Your task to perform on an android device: delete the emails in spam in the gmail app Image 0: 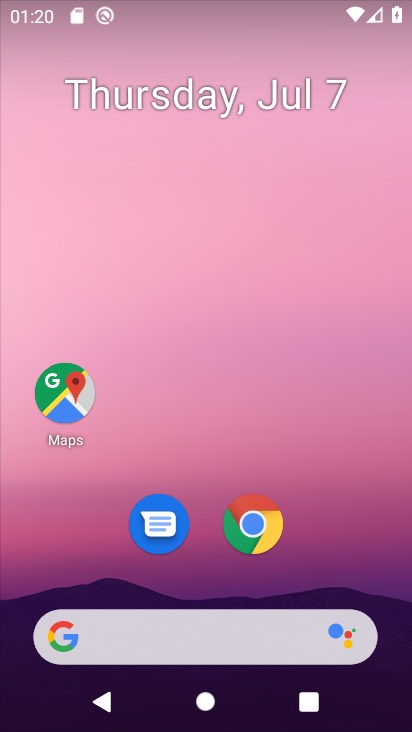
Step 0: drag from (344, 546) to (296, 119)
Your task to perform on an android device: delete the emails in spam in the gmail app Image 1: 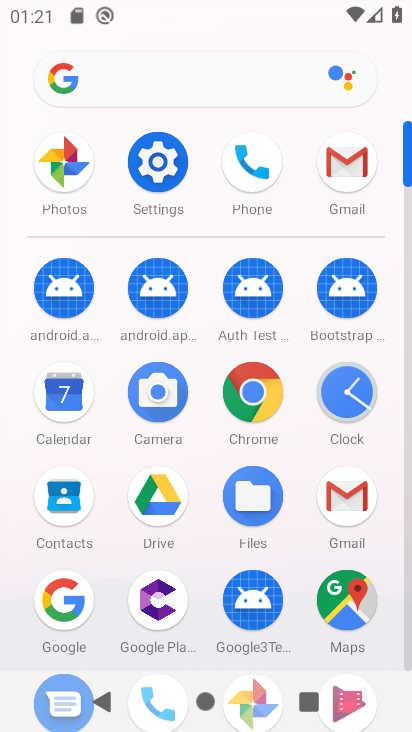
Step 1: click (339, 154)
Your task to perform on an android device: delete the emails in spam in the gmail app Image 2: 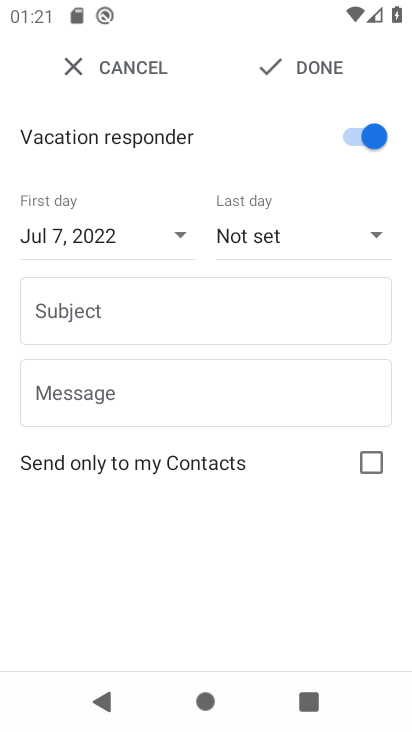
Step 2: click (75, 62)
Your task to perform on an android device: delete the emails in spam in the gmail app Image 3: 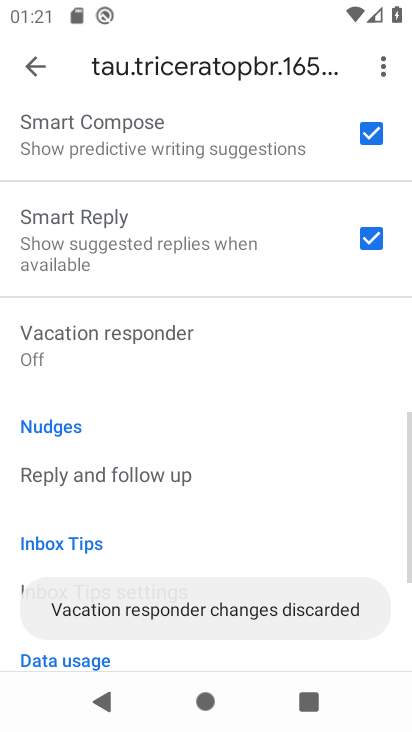
Step 3: click (40, 58)
Your task to perform on an android device: delete the emails in spam in the gmail app Image 4: 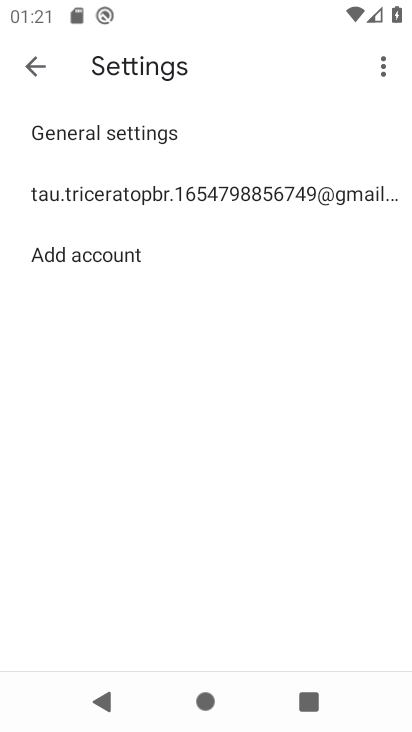
Step 4: click (40, 61)
Your task to perform on an android device: delete the emails in spam in the gmail app Image 5: 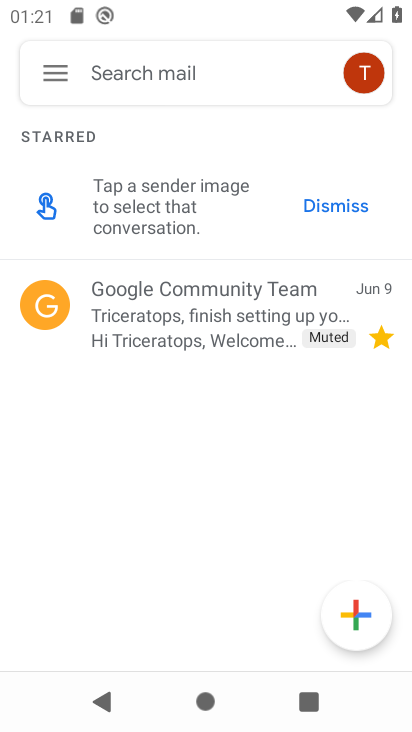
Step 5: click (56, 70)
Your task to perform on an android device: delete the emails in spam in the gmail app Image 6: 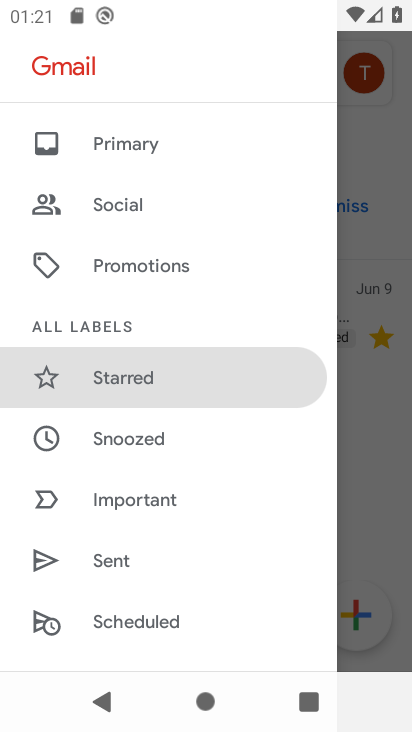
Step 6: drag from (195, 537) to (157, 155)
Your task to perform on an android device: delete the emails in spam in the gmail app Image 7: 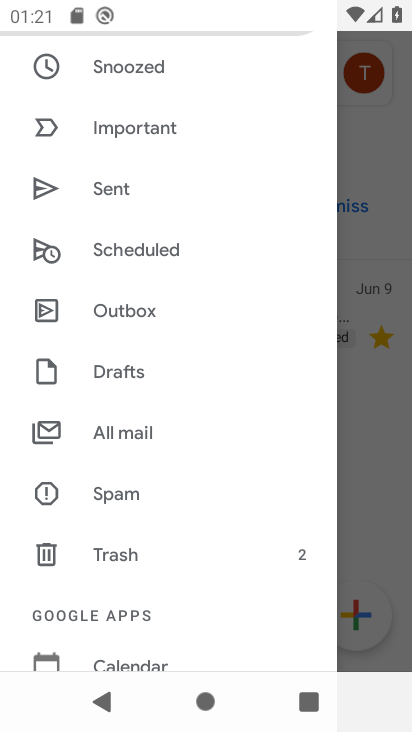
Step 7: click (128, 494)
Your task to perform on an android device: delete the emails in spam in the gmail app Image 8: 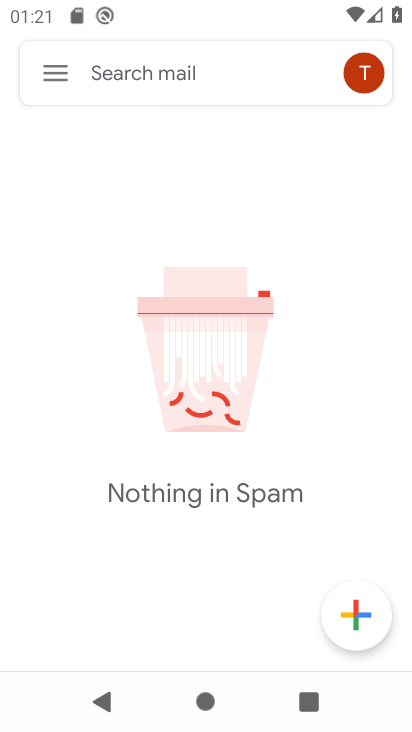
Step 8: task complete